Your task to perform on an android device: Is it going to rain tomorrow? Image 0: 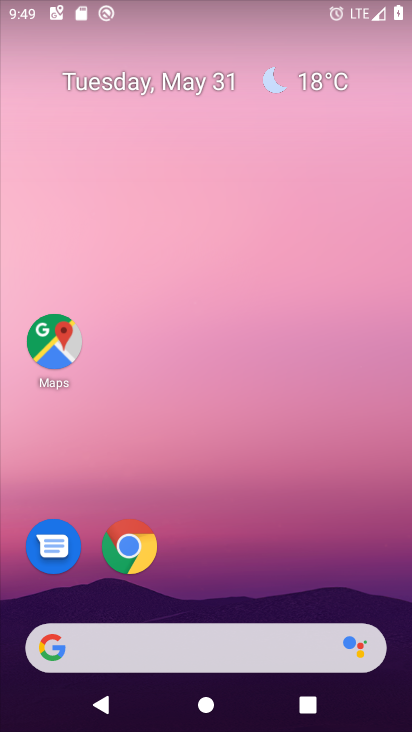
Step 0: click (381, 241)
Your task to perform on an android device: Is it going to rain tomorrow? Image 1: 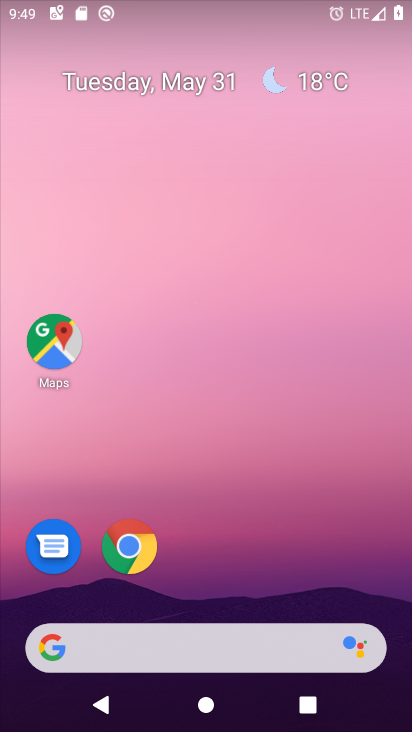
Step 1: click (278, 96)
Your task to perform on an android device: Is it going to rain tomorrow? Image 2: 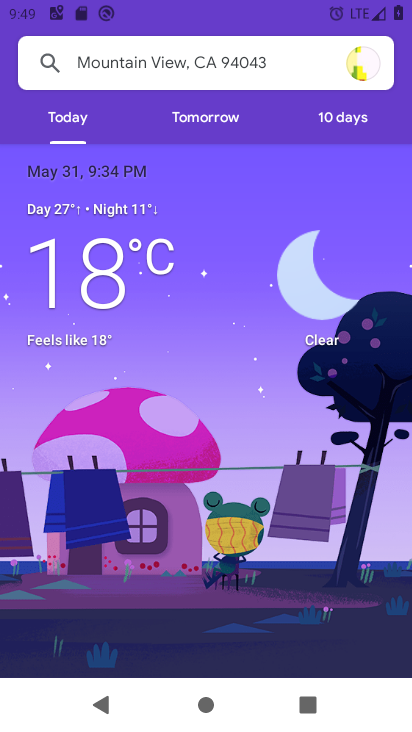
Step 2: click (200, 124)
Your task to perform on an android device: Is it going to rain tomorrow? Image 3: 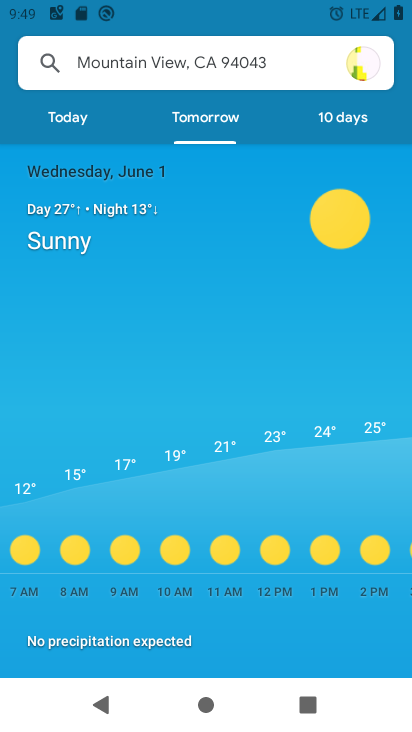
Step 3: task complete